Your task to perform on an android device: Show me popular videos on Youtube Image 0: 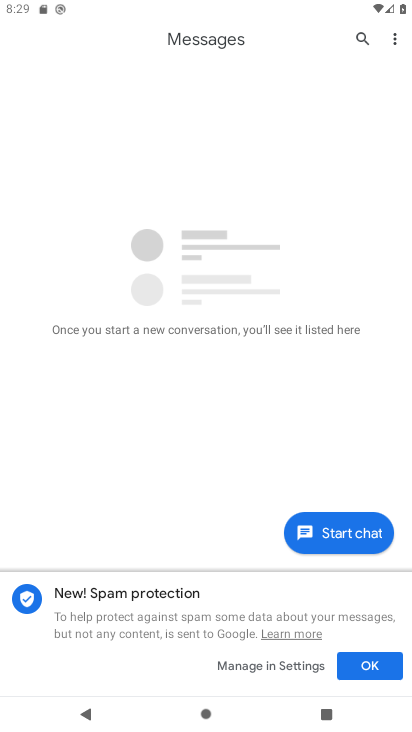
Step 0: press home button
Your task to perform on an android device: Show me popular videos on Youtube Image 1: 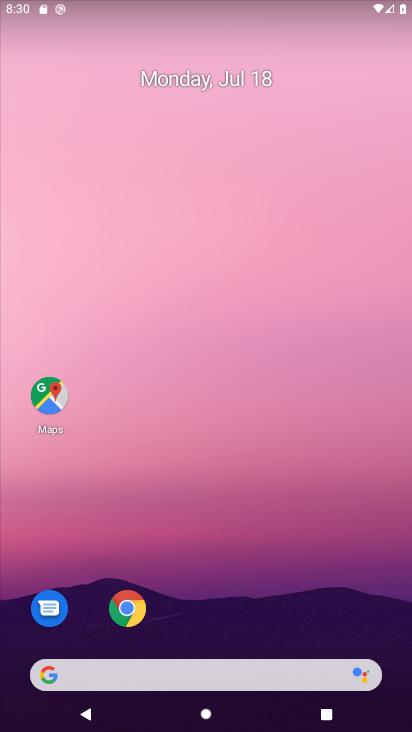
Step 1: drag from (181, 677) to (217, 33)
Your task to perform on an android device: Show me popular videos on Youtube Image 2: 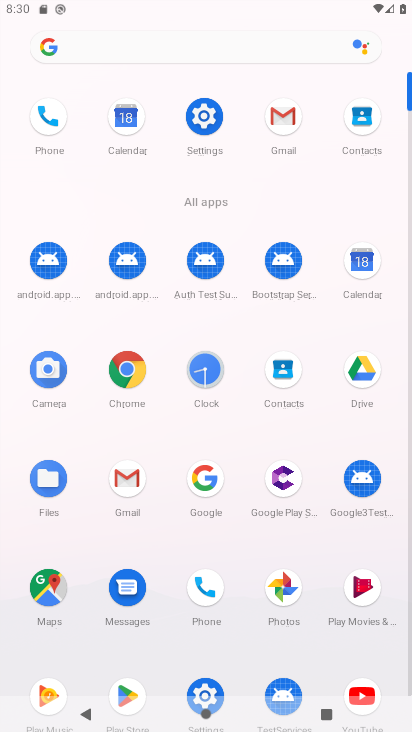
Step 2: drag from (232, 565) to (247, 300)
Your task to perform on an android device: Show me popular videos on Youtube Image 3: 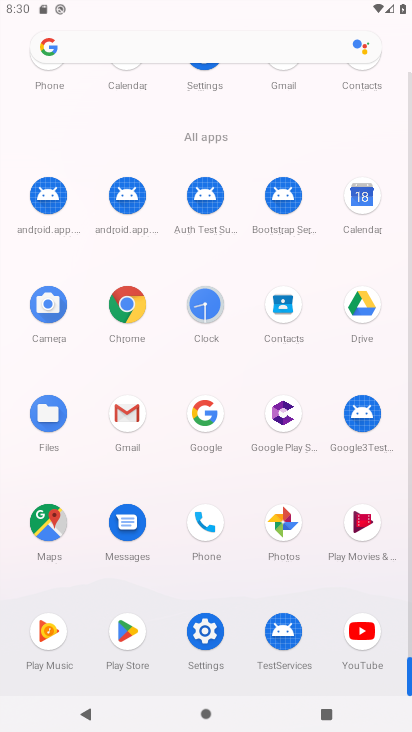
Step 3: click (361, 630)
Your task to perform on an android device: Show me popular videos on Youtube Image 4: 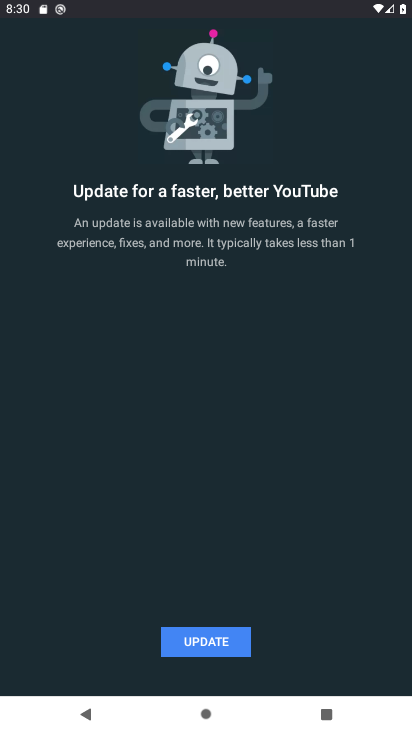
Step 4: click (204, 643)
Your task to perform on an android device: Show me popular videos on Youtube Image 5: 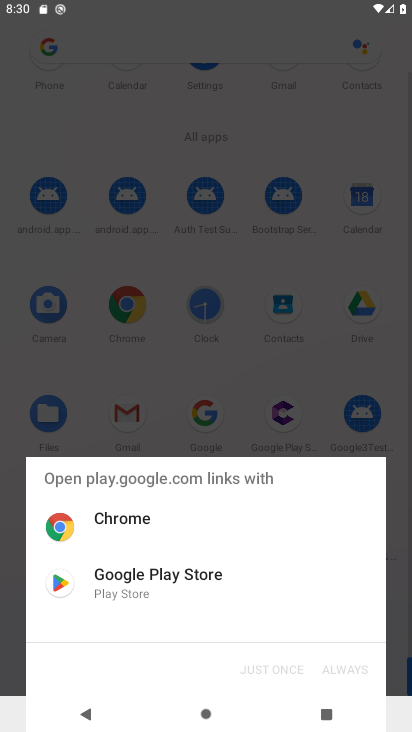
Step 5: click (159, 587)
Your task to perform on an android device: Show me popular videos on Youtube Image 6: 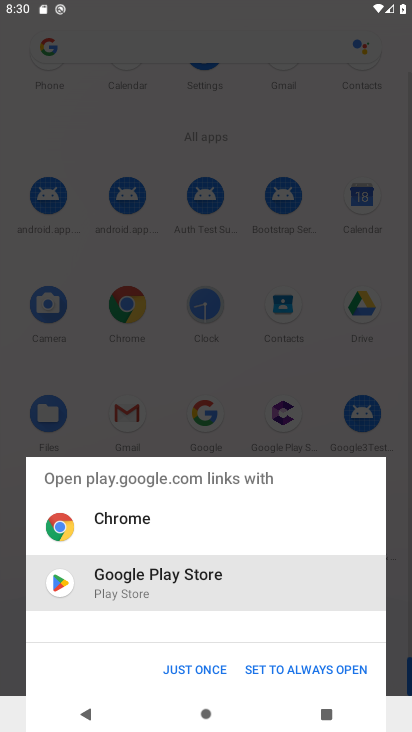
Step 6: click (189, 672)
Your task to perform on an android device: Show me popular videos on Youtube Image 7: 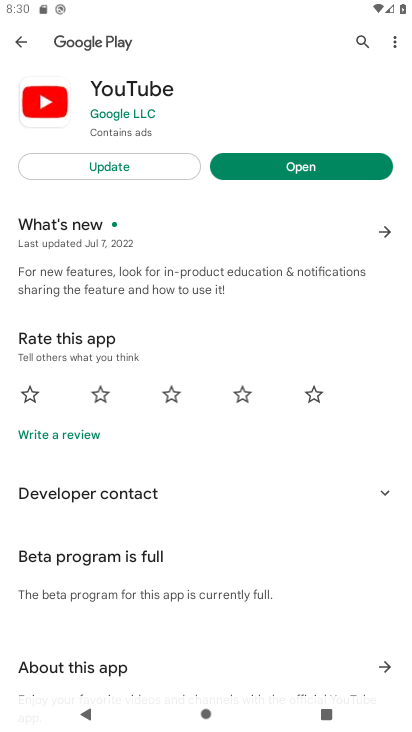
Step 7: click (117, 167)
Your task to perform on an android device: Show me popular videos on Youtube Image 8: 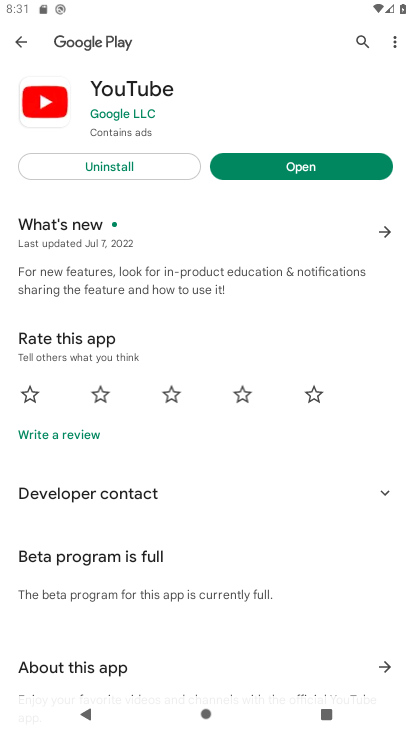
Step 8: click (294, 172)
Your task to perform on an android device: Show me popular videos on Youtube Image 9: 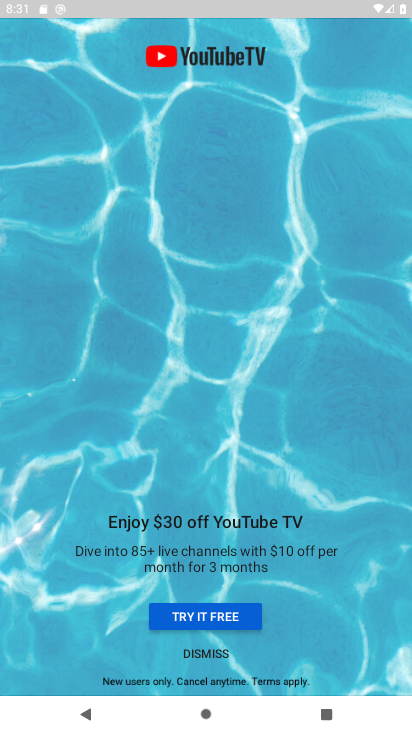
Step 9: click (206, 656)
Your task to perform on an android device: Show me popular videos on Youtube Image 10: 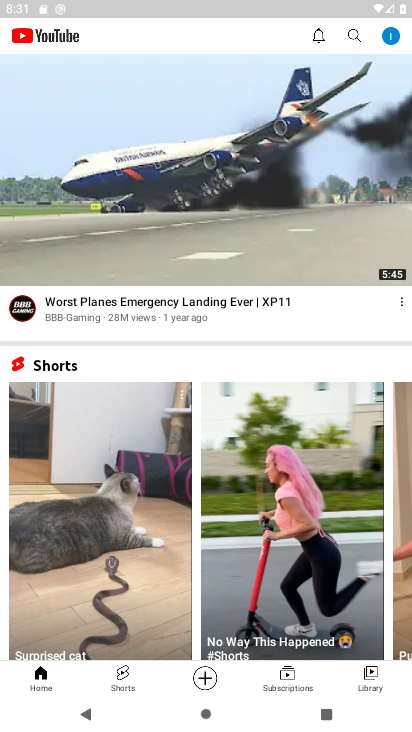
Step 10: click (356, 32)
Your task to perform on an android device: Show me popular videos on Youtube Image 11: 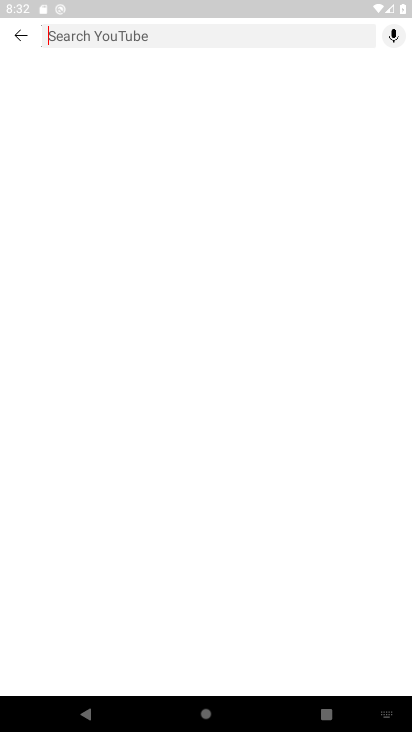
Step 11: type "popular video"
Your task to perform on an android device: Show me popular videos on Youtube Image 12: 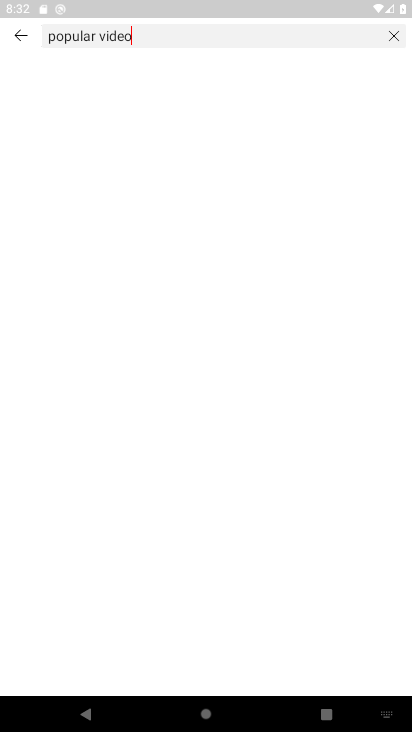
Step 12: type ""
Your task to perform on an android device: Show me popular videos on Youtube Image 13: 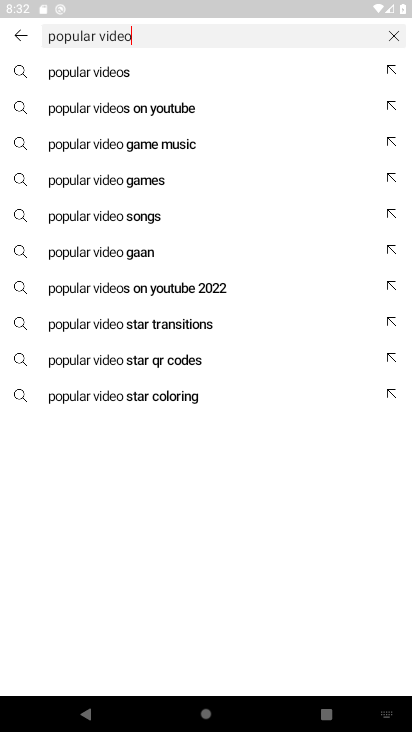
Step 13: click (92, 76)
Your task to perform on an android device: Show me popular videos on Youtube Image 14: 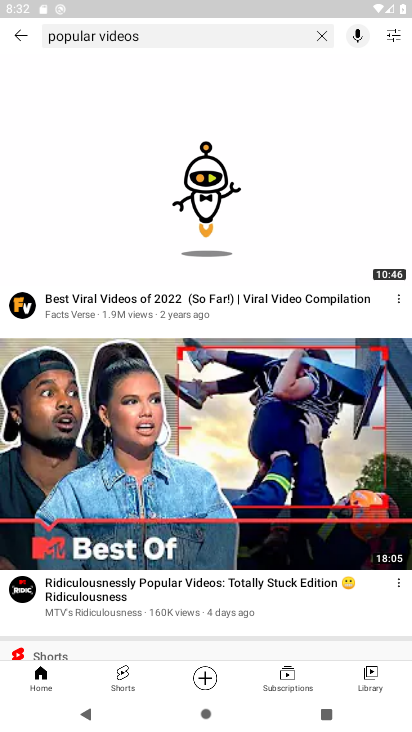
Step 14: task complete